Your task to perform on an android device: change the clock display to digital Image 0: 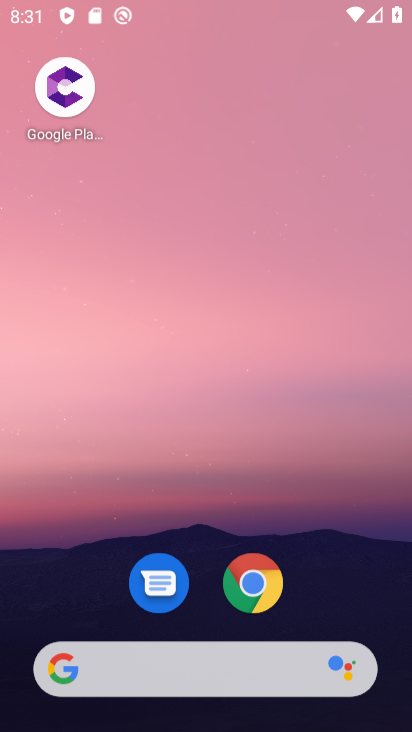
Step 0: press home button
Your task to perform on an android device: change the clock display to digital Image 1: 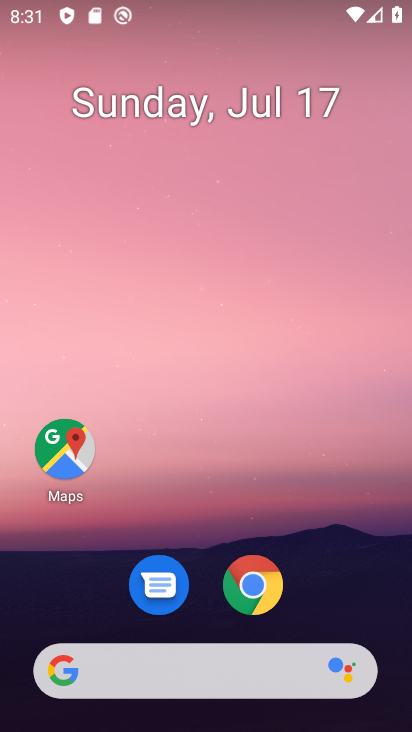
Step 1: drag from (185, 675) to (312, 35)
Your task to perform on an android device: change the clock display to digital Image 2: 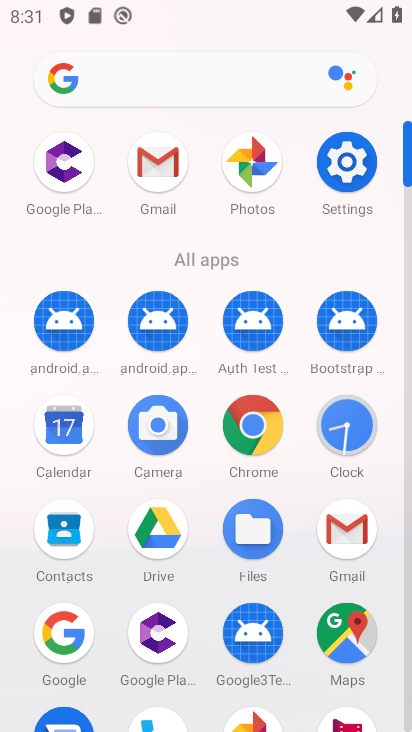
Step 2: click (345, 428)
Your task to perform on an android device: change the clock display to digital Image 3: 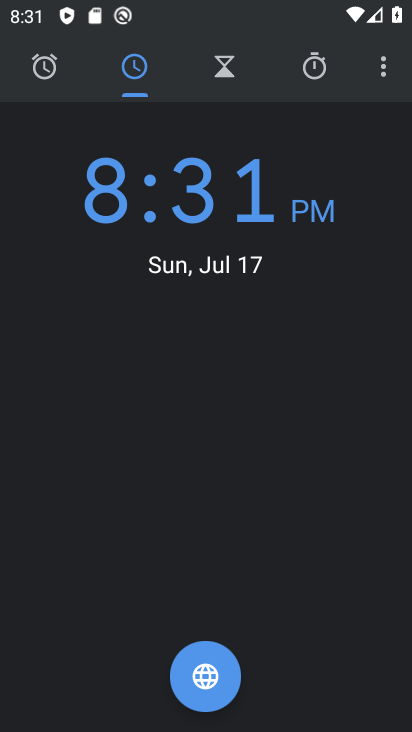
Step 3: click (380, 70)
Your task to perform on an android device: change the clock display to digital Image 4: 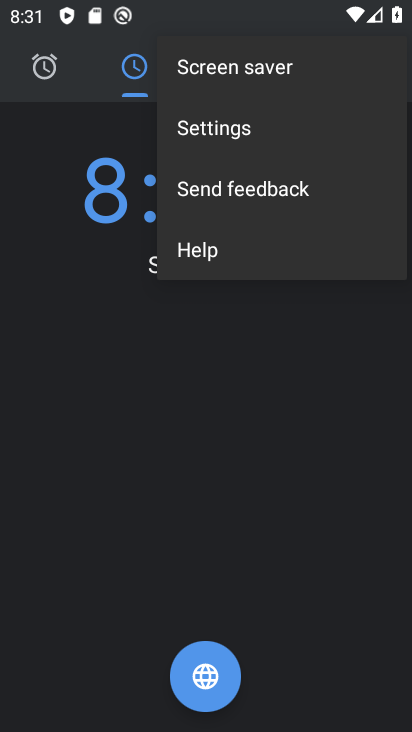
Step 4: click (225, 128)
Your task to perform on an android device: change the clock display to digital Image 5: 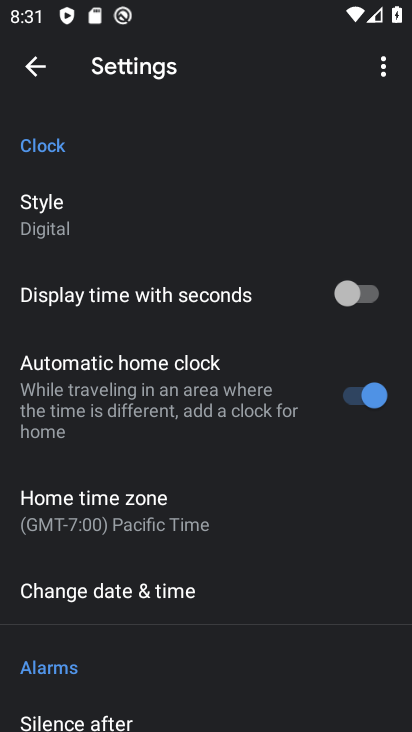
Step 5: task complete